Your task to perform on an android device: delete the emails in spam in the gmail app Image 0: 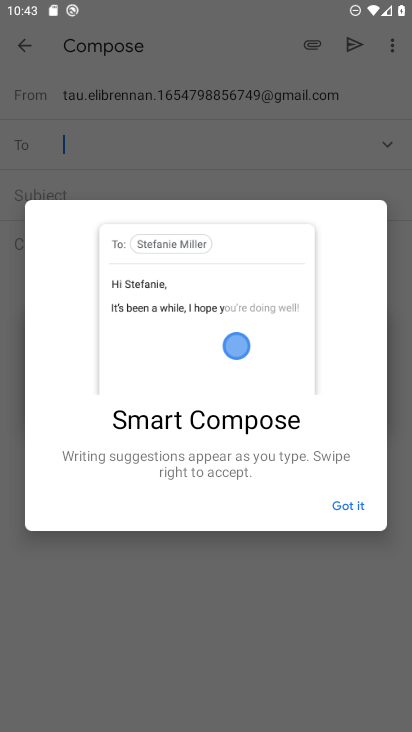
Step 0: press home button
Your task to perform on an android device: delete the emails in spam in the gmail app Image 1: 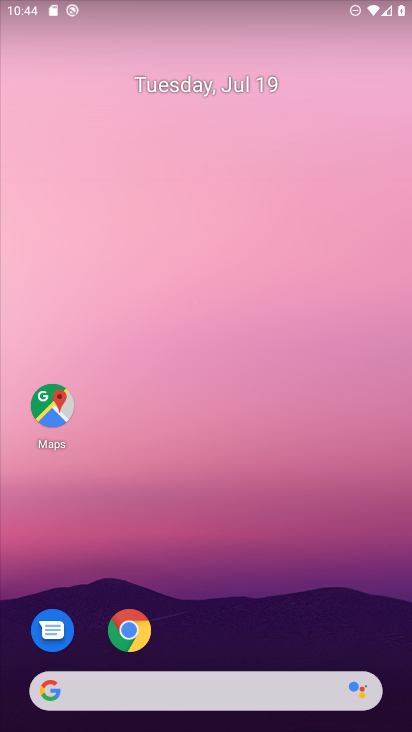
Step 1: drag from (186, 690) to (322, 50)
Your task to perform on an android device: delete the emails in spam in the gmail app Image 2: 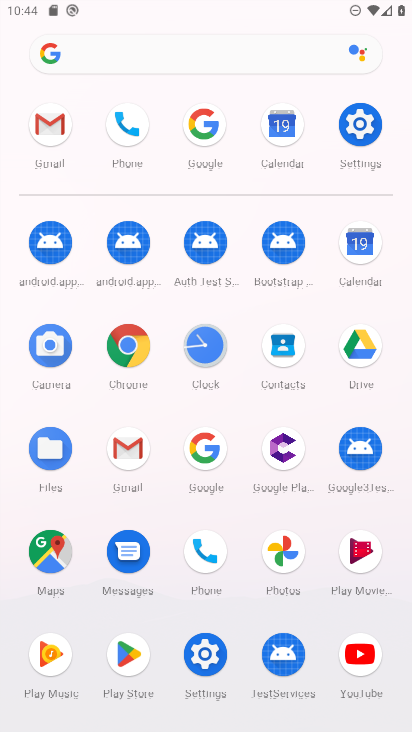
Step 2: click (125, 446)
Your task to perform on an android device: delete the emails in spam in the gmail app Image 3: 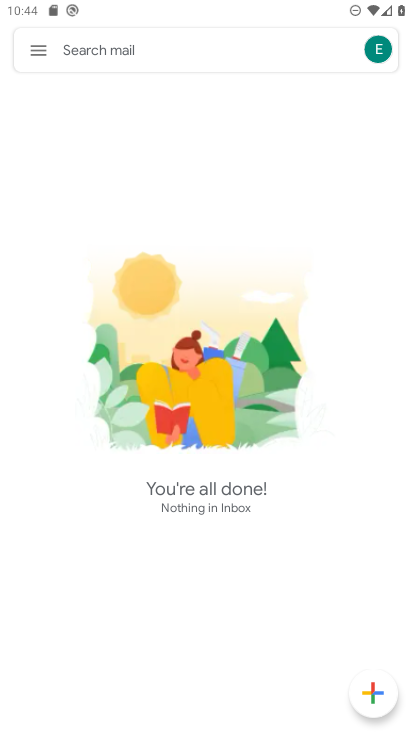
Step 3: click (38, 47)
Your task to perform on an android device: delete the emails in spam in the gmail app Image 4: 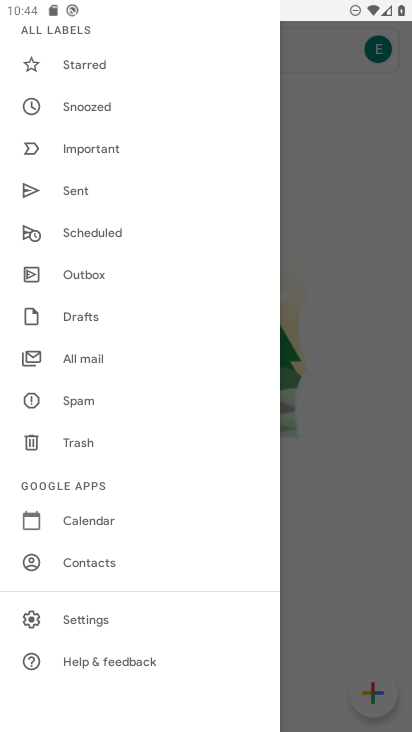
Step 4: click (83, 397)
Your task to perform on an android device: delete the emails in spam in the gmail app Image 5: 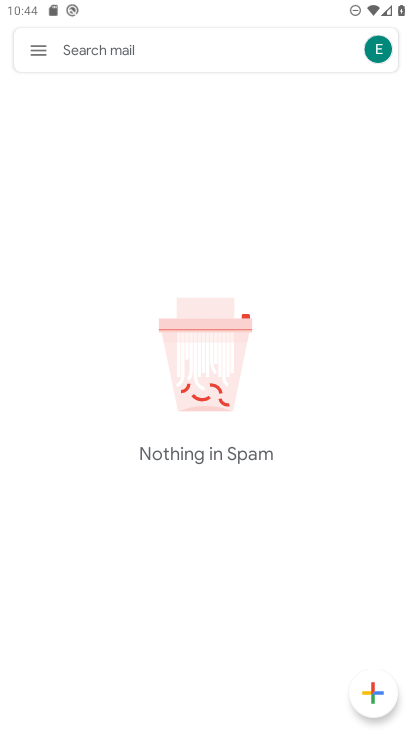
Step 5: task complete